Your task to perform on an android device: Open calendar and show me the fourth week of next month Image 0: 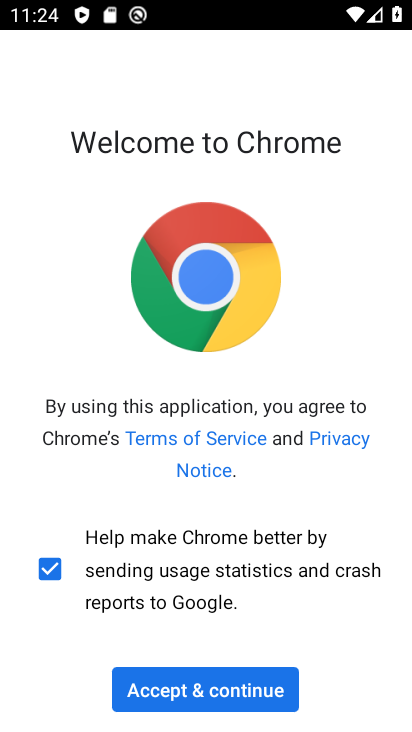
Step 0: press back button
Your task to perform on an android device: Open calendar and show me the fourth week of next month Image 1: 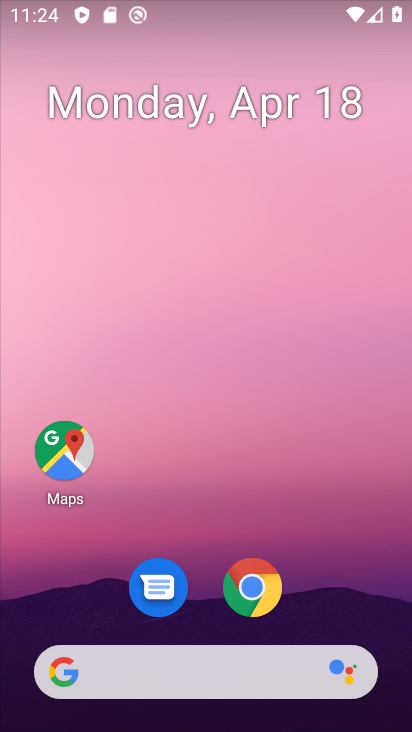
Step 1: drag from (224, 486) to (279, 92)
Your task to perform on an android device: Open calendar and show me the fourth week of next month Image 2: 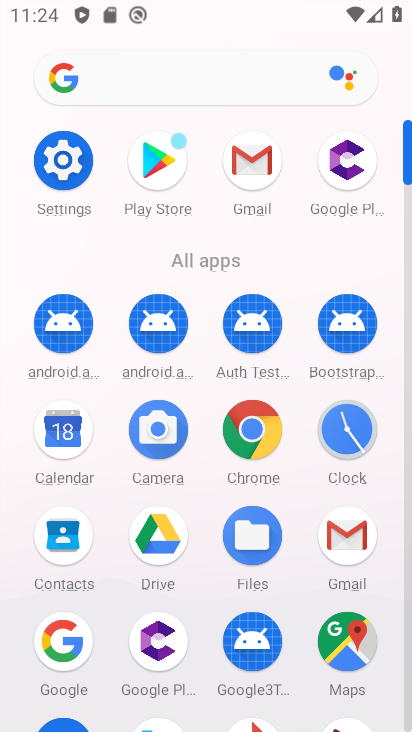
Step 2: click (65, 453)
Your task to perform on an android device: Open calendar and show me the fourth week of next month Image 3: 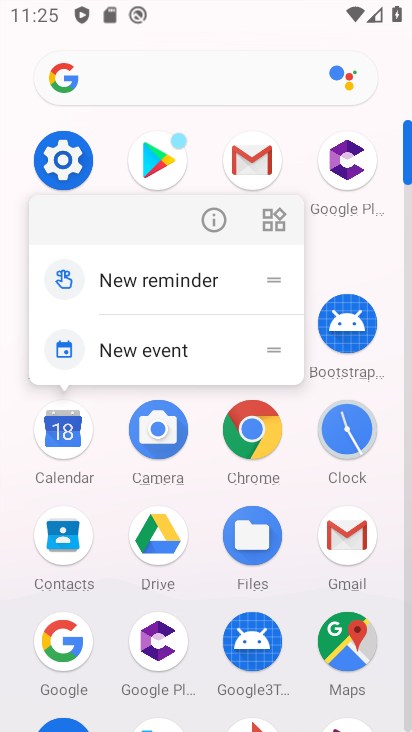
Step 3: click (65, 453)
Your task to perform on an android device: Open calendar and show me the fourth week of next month Image 4: 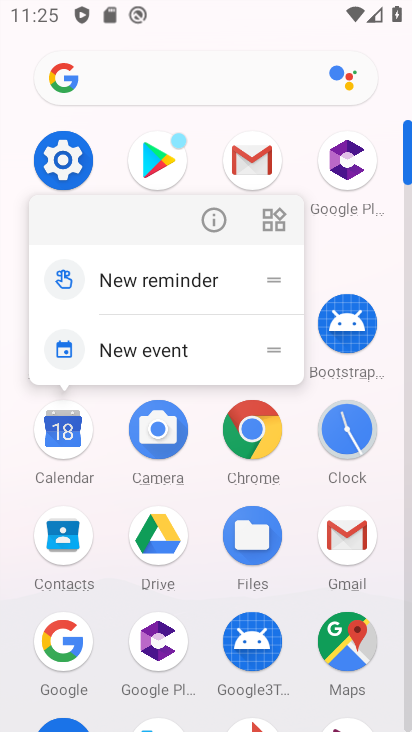
Step 4: click (65, 444)
Your task to perform on an android device: Open calendar and show me the fourth week of next month Image 5: 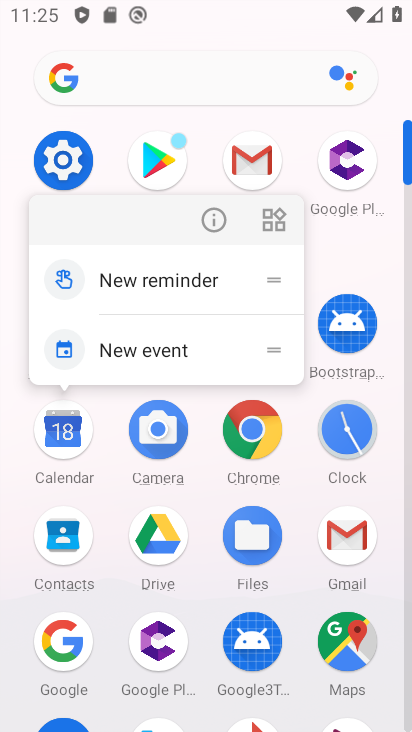
Step 5: click (65, 442)
Your task to perform on an android device: Open calendar and show me the fourth week of next month Image 6: 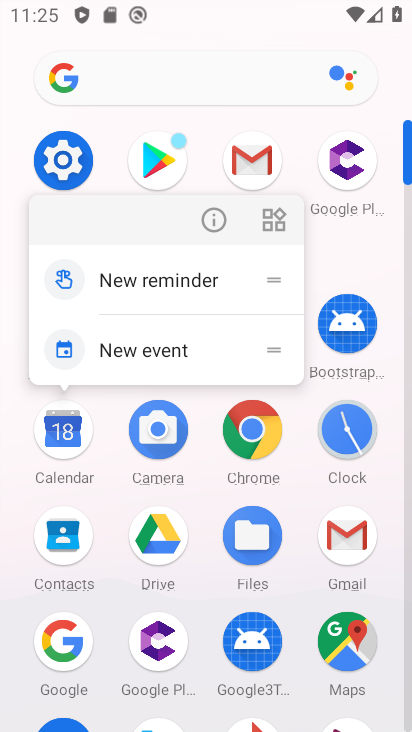
Step 6: click (68, 451)
Your task to perform on an android device: Open calendar and show me the fourth week of next month Image 7: 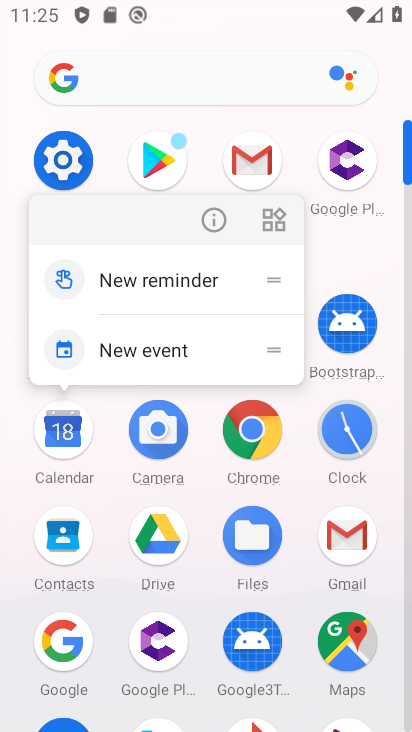
Step 7: click (68, 440)
Your task to perform on an android device: Open calendar and show me the fourth week of next month Image 8: 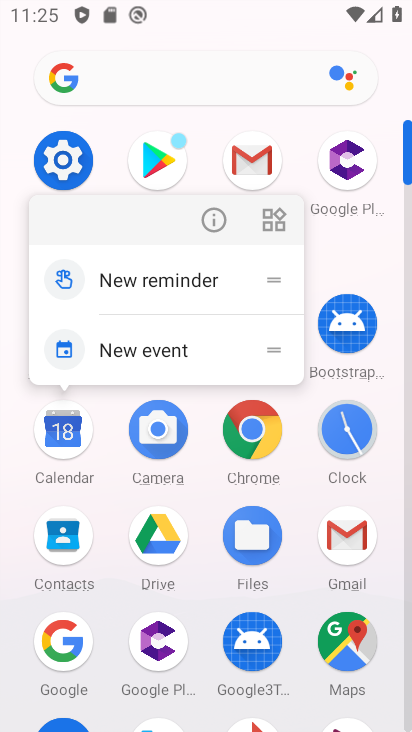
Step 8: click (77, 435)
Your task to perform on an android device: Open calendar and show me the fourth week of next month Image 9: 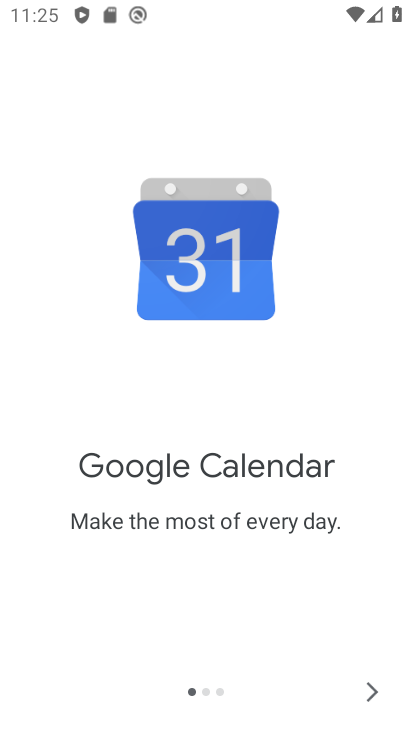
Step 9: click (365, 684)
Your task to perform on an android device: Open calendar and show me the fourth week of next month Image 10: 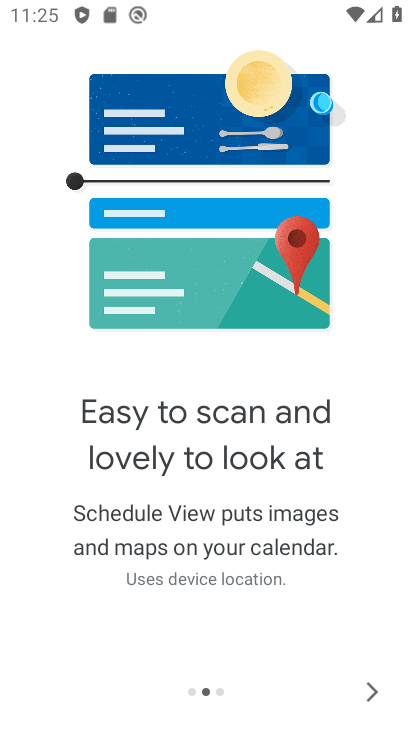
Step 10: click (369, 699)
Your task to perform on an android device: Open calendar and show me the fourth week of next month Image 11: 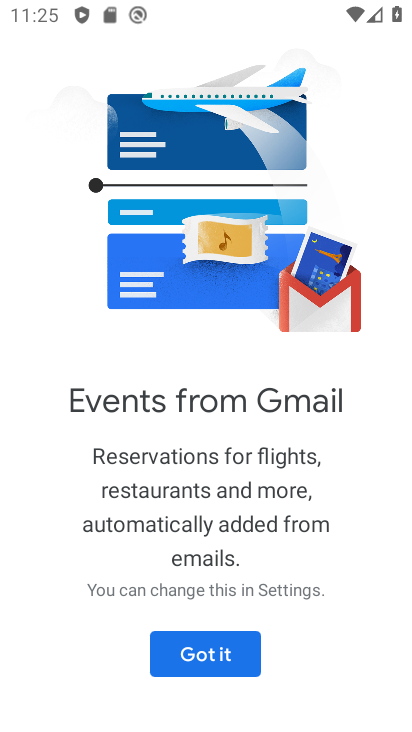
Step 11: click (233, 667)
Your task to perform on an android device: Open calendar and show me the fourth week of next month Image 12: 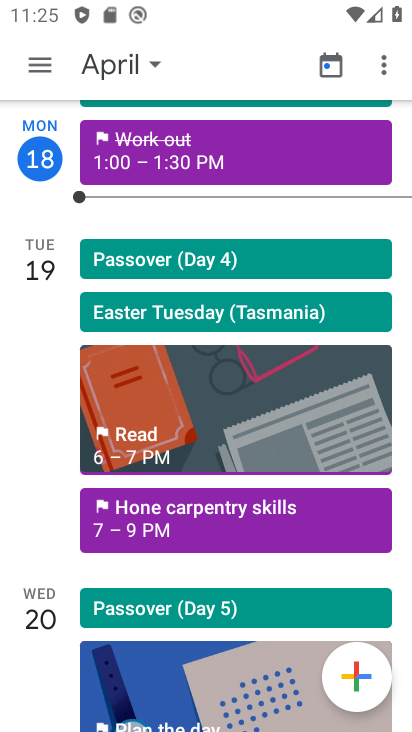
Step 12: click (47, 68)
Your task to perform on an android device: Open calendar and show me the fourth week of next month Image 13: 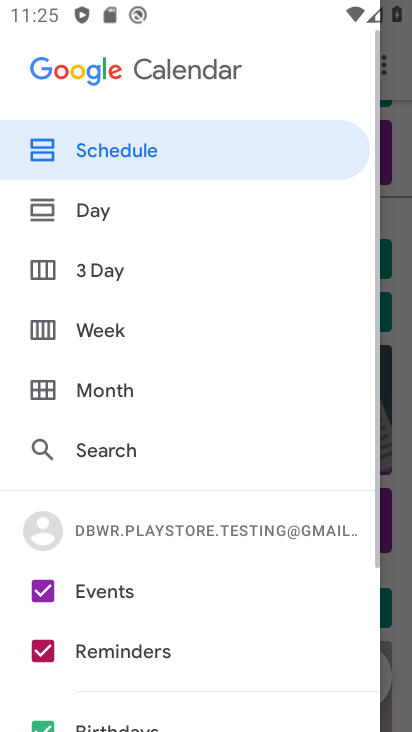
Step 13: click (124, 335)
Your task to perform on an android device: Open calendar and show me the fourth week of next month Image 14: 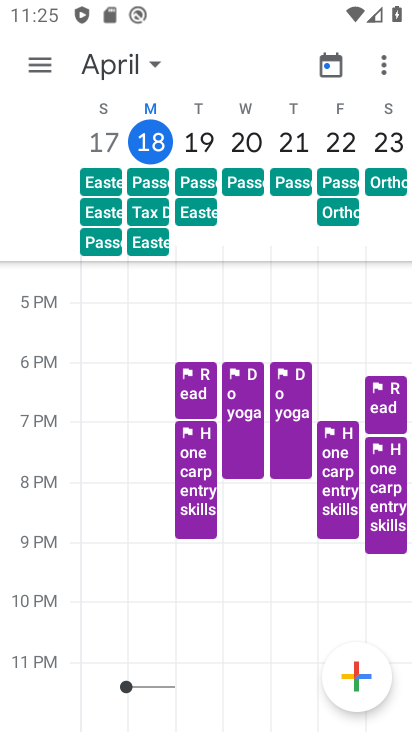
Step 14: click (130, 72)
Your task to perform on an android device: Open calendar and show me the fourth week of next month Image 15: 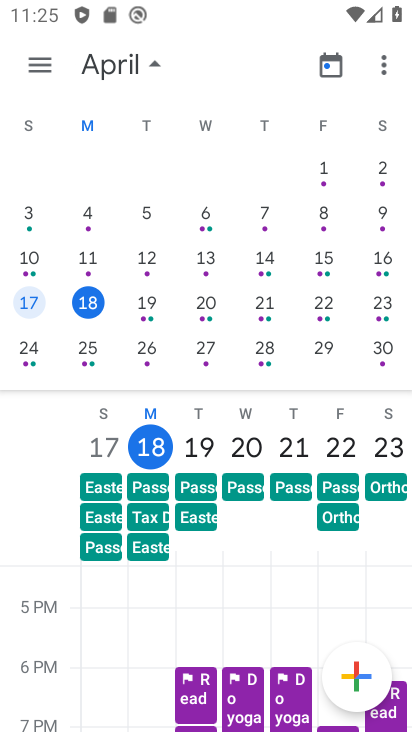
Step 15: click (29, 347)
Your task to perform on an android device: Open calendar and show me the fourth week of next month Image 16: 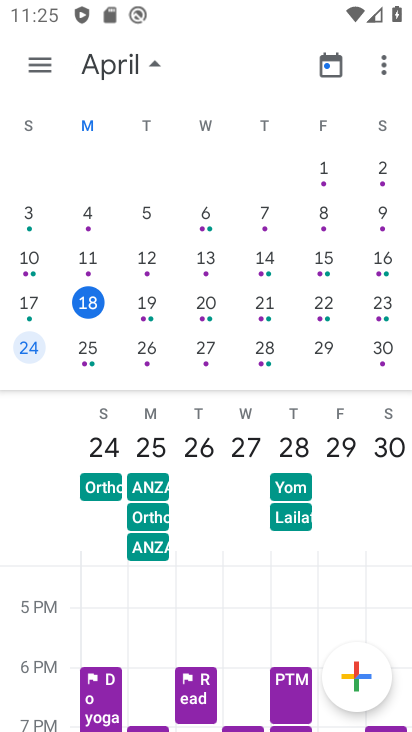
Step 16: click (29, 347)
Your task to perform on an android device: Open calendar and show me the fourth week of next month Image 17: 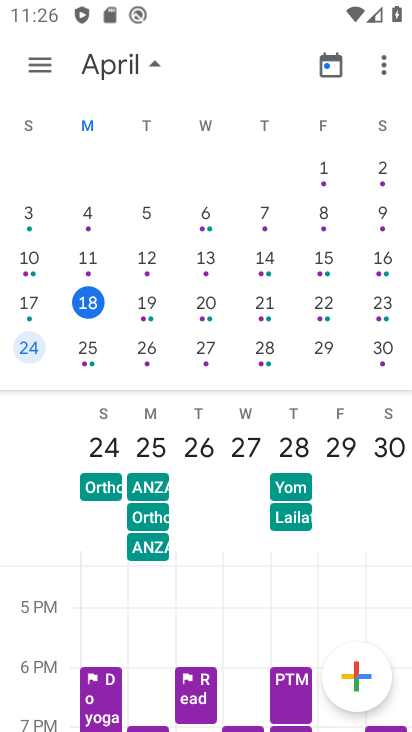
Step 17: click (36, 347)
Your task to perform on an android device: Open calendar and show me the fourth week of next month Image 18: 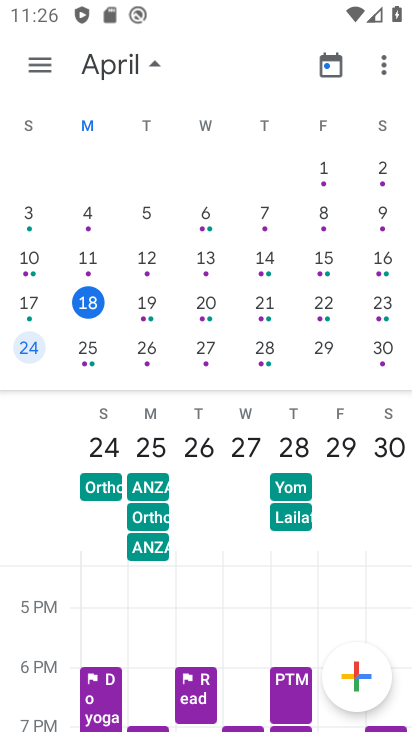
Step 18: click (37, 345)
Your task to perform on an android device: Open calendar and show me the fourth week of next month Image 19: 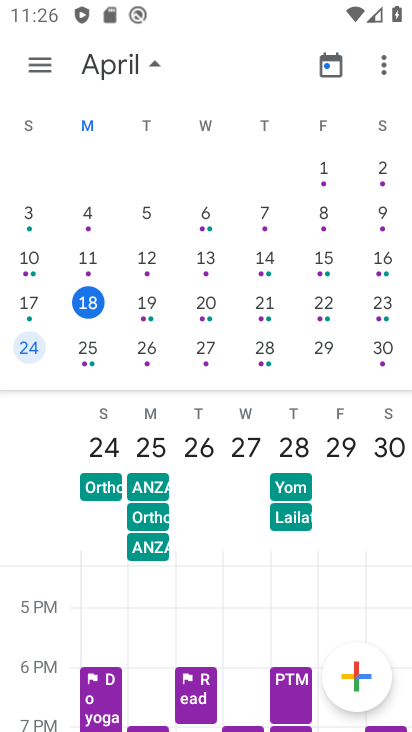
Step 19: click (37, 345)
Your task to perform on an android device: Open calendar and show me the fourth week of next month Image 20: 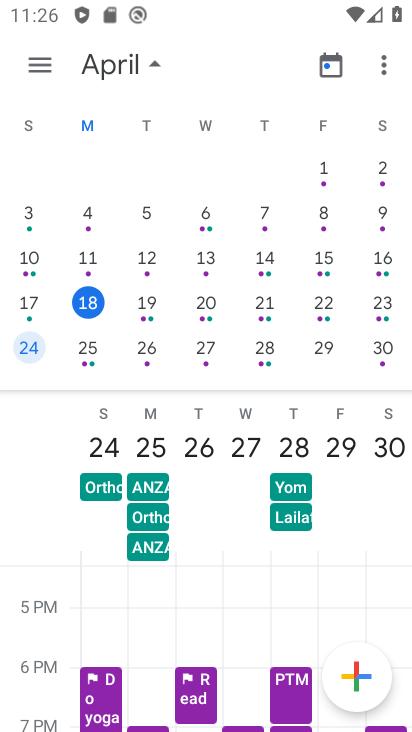
Step 20: click (28, 351)
Your task to perform on an android device: Open calendar and show me the fourth week of next month Image 21: 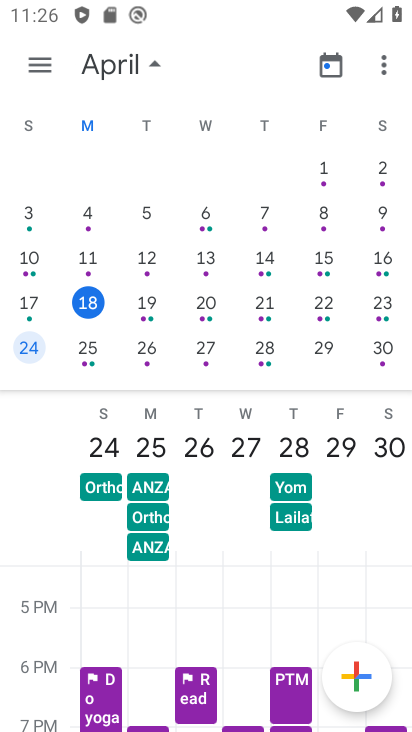
Step 21: click (39, 345)
Your task to perform on an android device: Open calendar and show me the fourth week of next month Image 22: 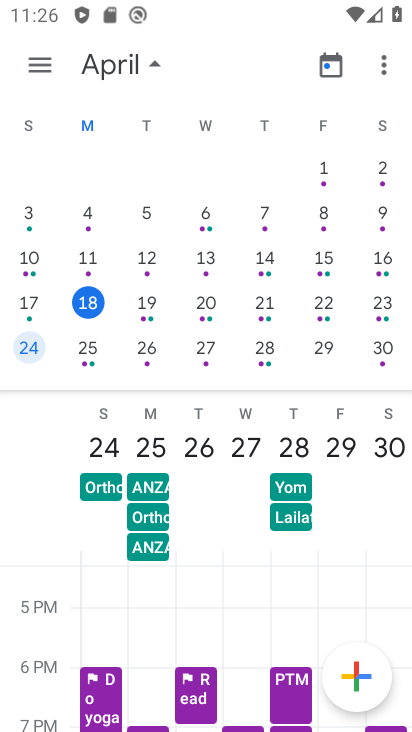
Step 22: click (135, 71)
Your task to perform on an android device: Open calendar and show me the fourth week of next month Image 23: 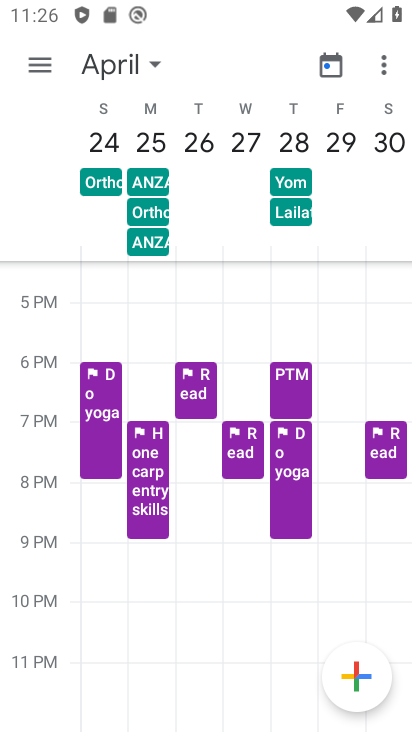
Step 23: task complete